Your task to perform on an android device: turn off airplane mode Image 0: 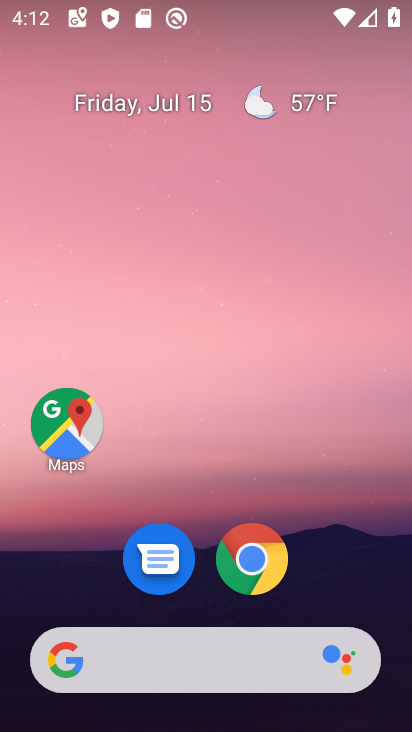
Step 0: drag from (355, 78) to (338, 652)
Your task to perform on an android device: turn off airplane mode Image 1: 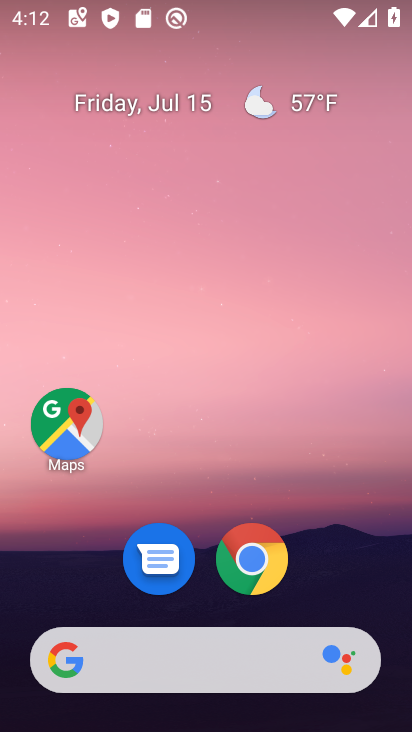
Step 1: task complete